Your task to perform on an android device: open chrome privacy settings Image 0: 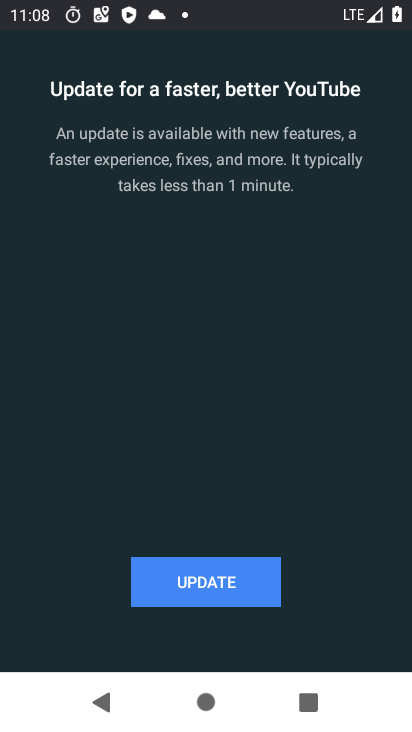
Step 0: press home button
Your task to perform on an android device: open chrome privacy settings Image 1: 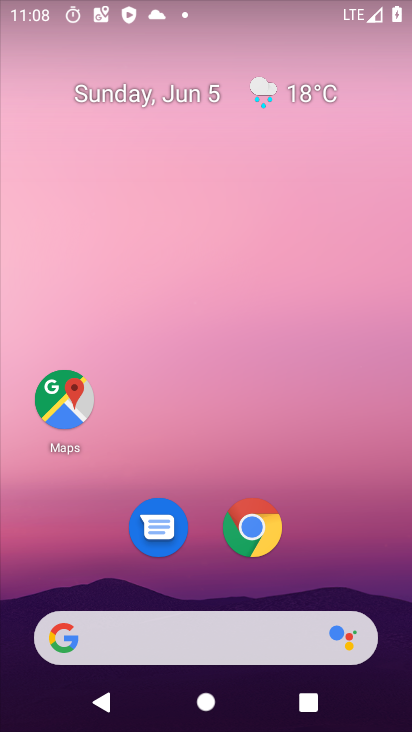
Step 1: click (264, 525)
Your task to perform on an android device: open chrome privacy settings Image 2: 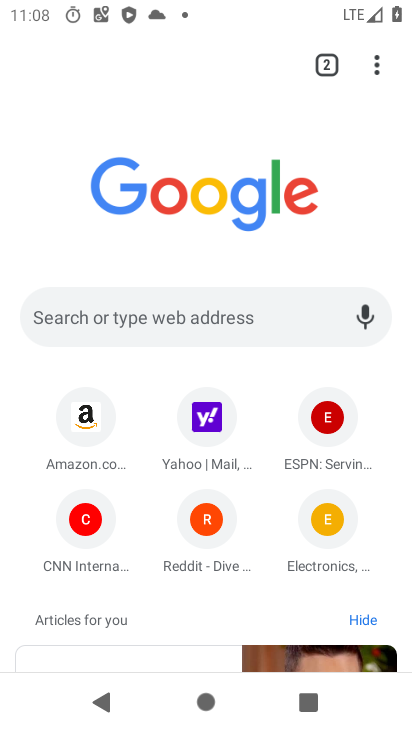
Step 2: click (370, 65)
Your task to perform on an android device: open chrome privacy settings Image 3: 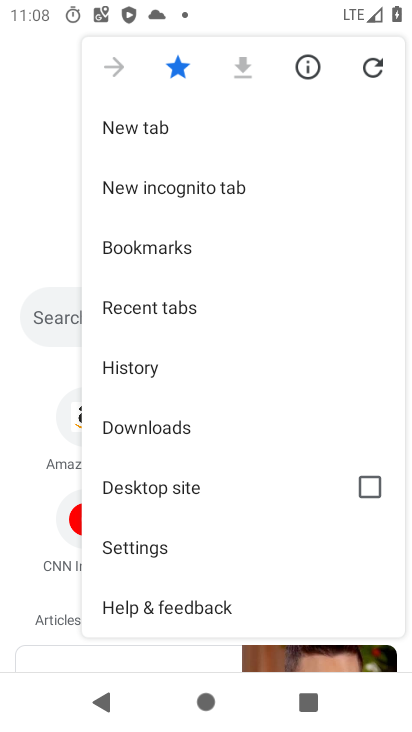
Step 3: click (183, 541)
Your task to perform on an android device: open chrome privacy settings Image 4: 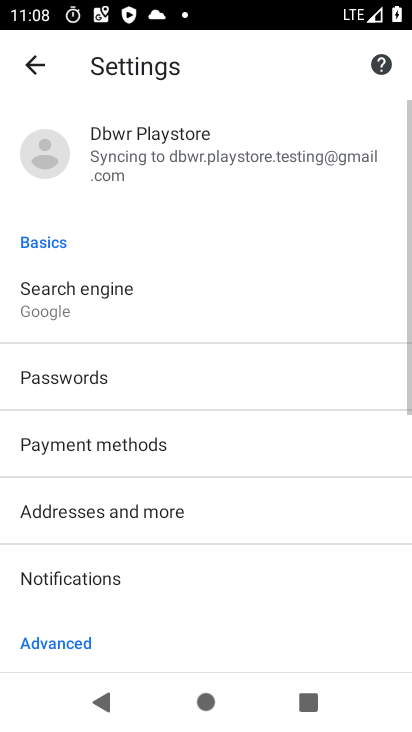
Step 4: drag from (284, 536) to (244, 72)
Your task to perform on an android device: open chrome privacy settings Image 5: 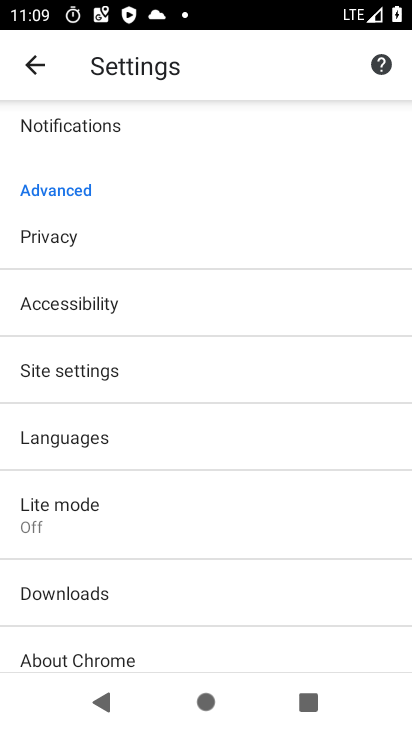
Step 5: click (165, 233)
Your task to perform on an android device: open chrome privacy settings Image 6: 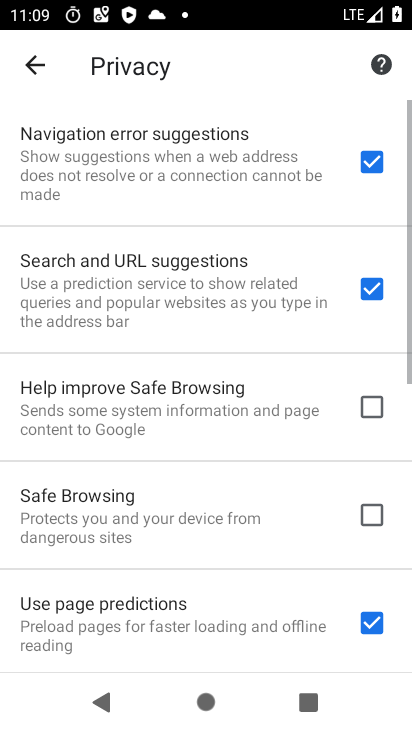
Step 6: task complete